Your task to perform on an android device: check data usage Image 0: 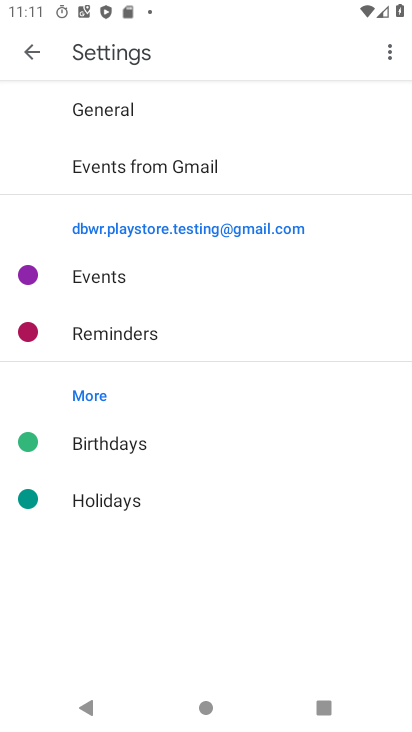
Step 0: press home button
Your task to perform on an android device: check data usage Image 1: 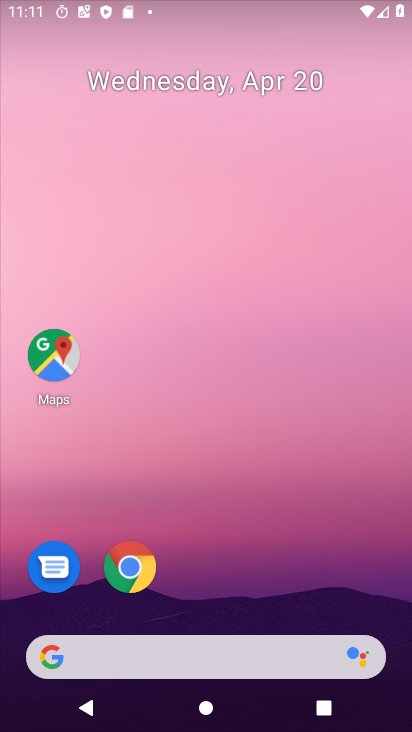
Step 1: drag from (282, 439) to (312, 101)
Your task to perform on an android device: check data usage Image 2: 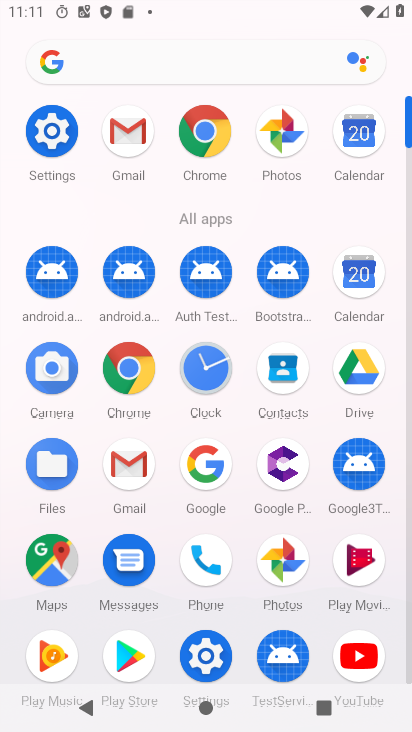
Step 2: click (209, 648)
Your task to perform on an android device: check data usage Image 3: 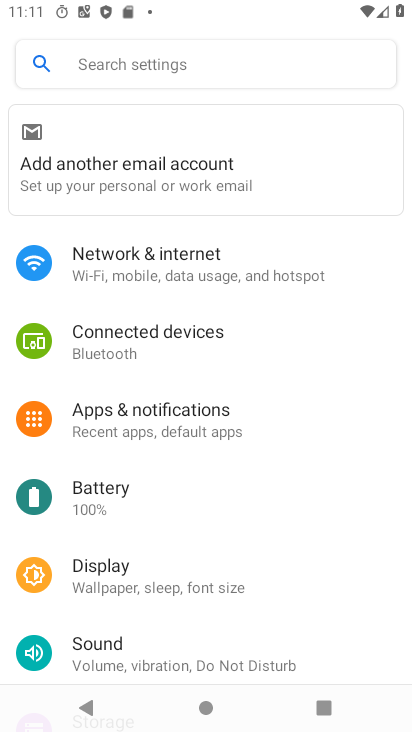
Step 3: click (240, 281)
Your task to perform on an android device: check data usage Image 4: 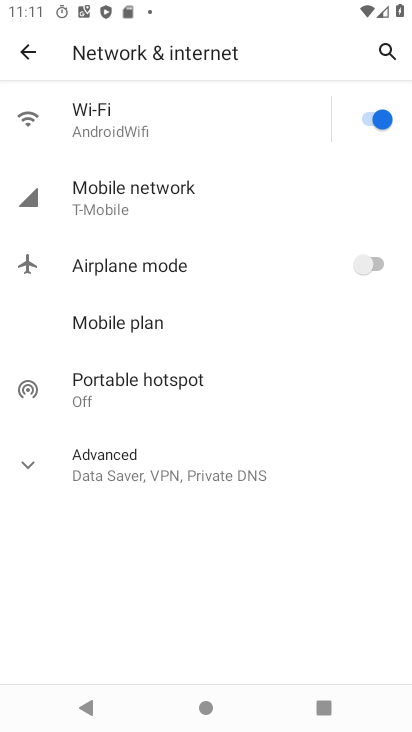
Step 4: click (174, 206)
Your task to perform on an android device: check data usage Image 5: 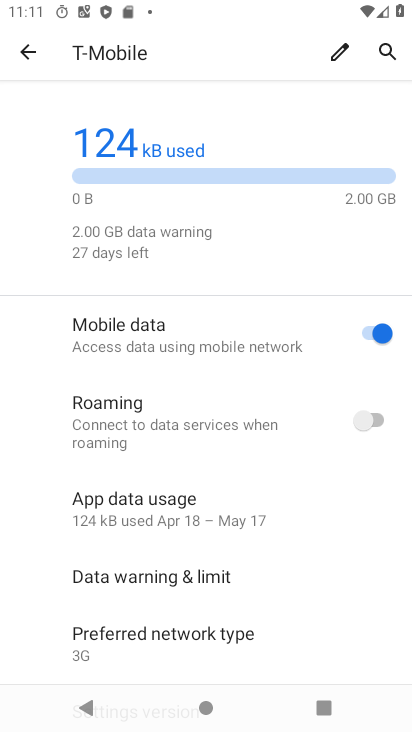
Step 5: click (261, 195)
Your task to perform on an android device: check data usage Image 6: 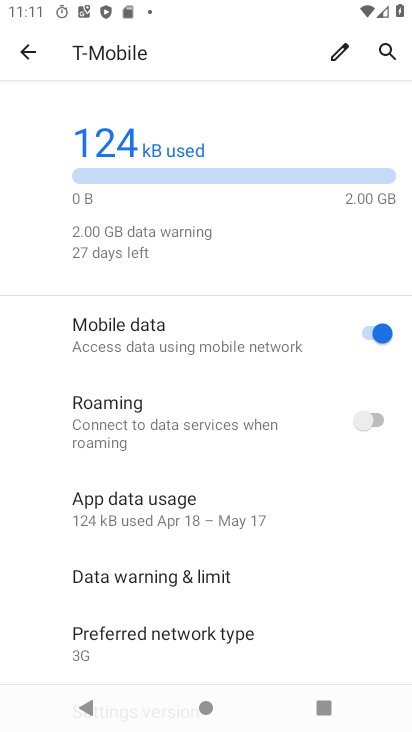
Step 6: click (195, 195)
Your task to perform on an android device: check data usage Image 7: 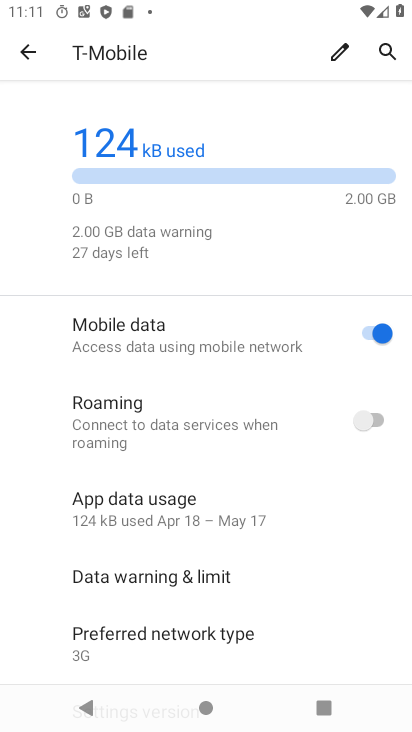
Step 7: click (187, 212)
Your task to perform on an android device: check data usage Image 8: 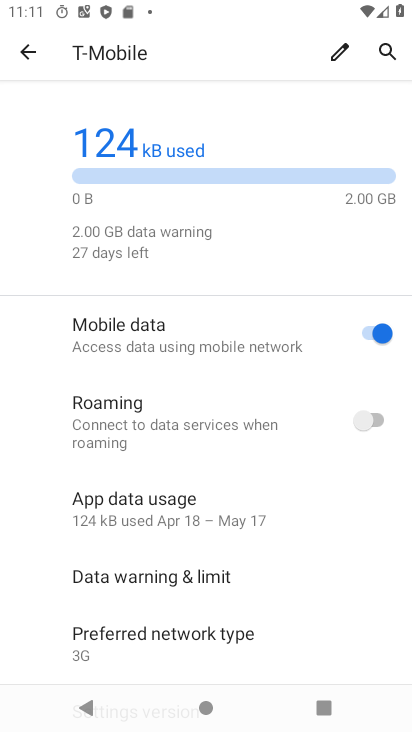
Step 8: task complete